Your task to perform on an android device: Open the phone app and click the voicemail tab. Image 0: 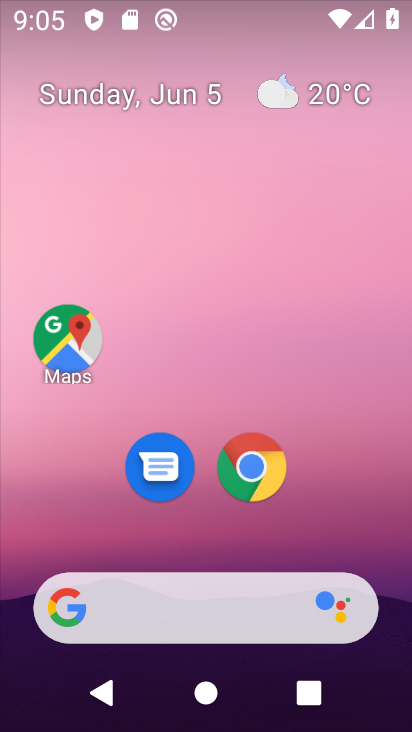
Step 0: drag from (333, 538) to (314, 1)
Your task to perform on an android device: Open the phone app and click the voicemail tab. Image 1: 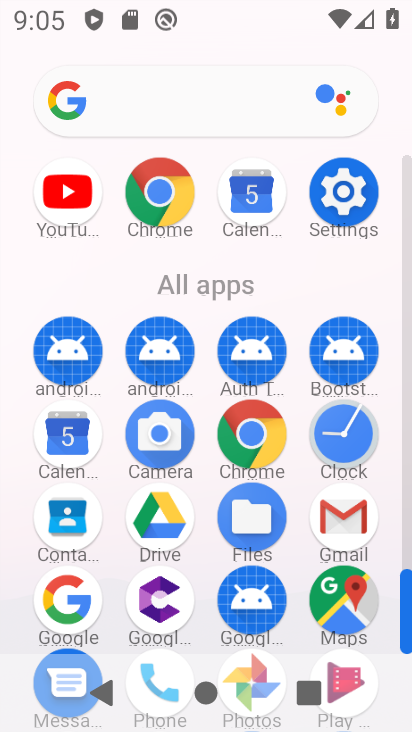
Step 1: drag from (124, 581) to (134, 192)
Your task to perform on an android device: Open the phone app and click the voicemail tab. Image 2: 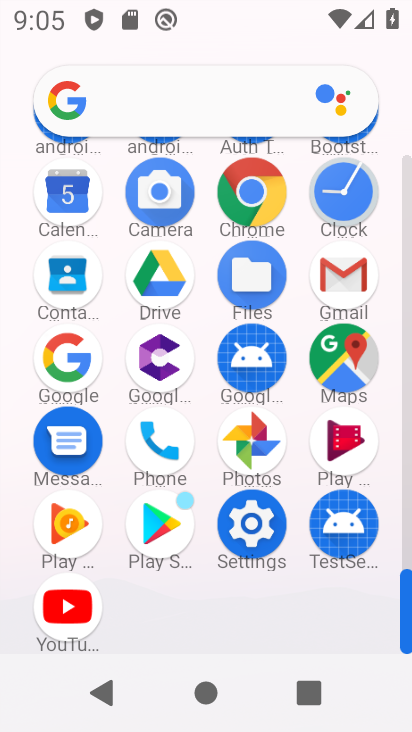
Step 2: click (158, 441)
Your task to perform on an android device: Open the phone app and click the voicemail tab. Image 3: 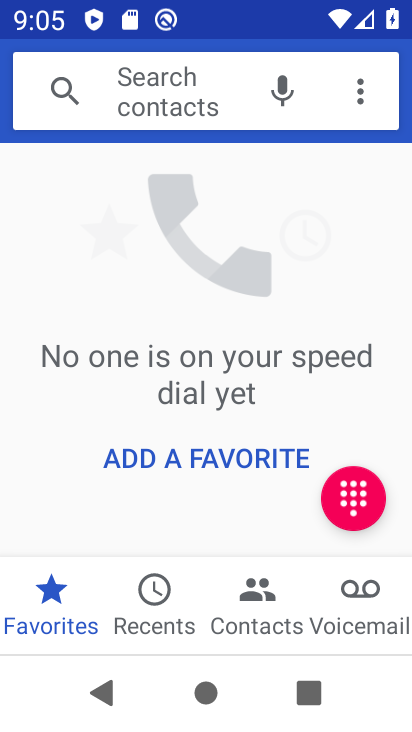
Step 3: click (345, 590)
Your task to perform on an android device: Open the phone app and click the voicemail tab. Image 4: 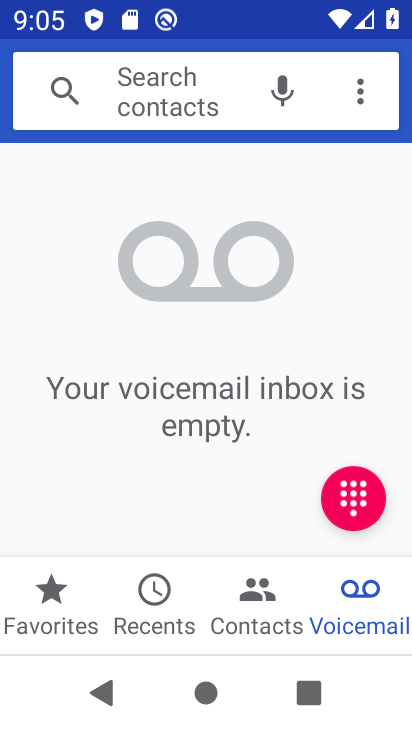
Step 4: task complete